Your task to perform on an android device: Go to battery settings Image 0: 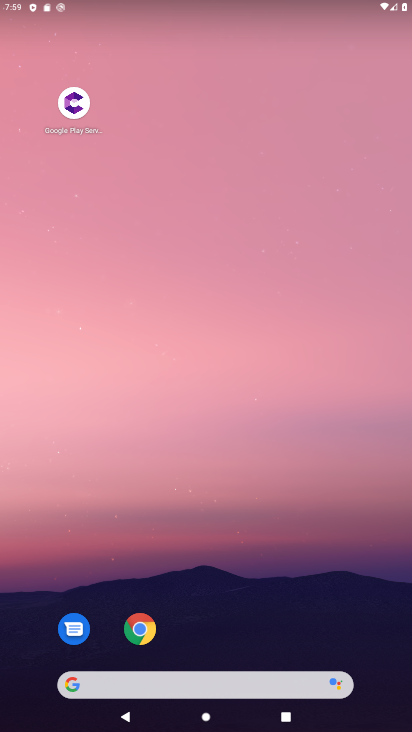
Step 0: drag from (263, 635) to (245, 202)
Your task to perform on an android device: Go to battery settings Image 1: 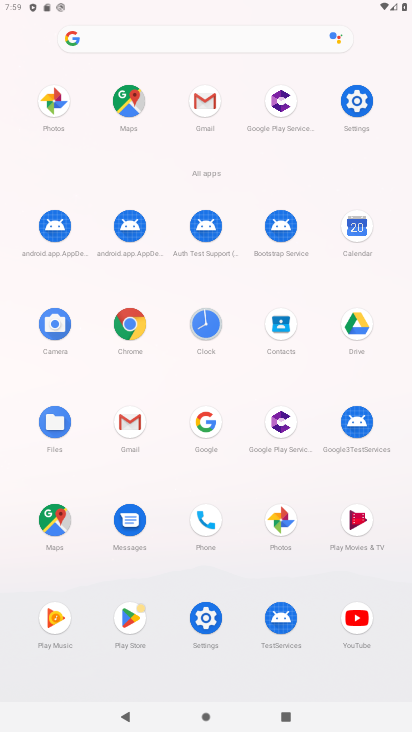
Step 1: click (351, 99)
Your task to perform on an android device: Go to battery settings Image 2: 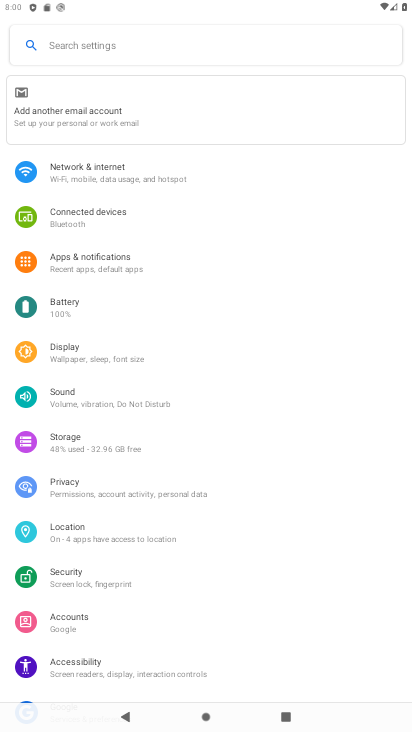
Step 2: click (199, 305)
Your task to perform on an android device: Go to battery settings Image 3: 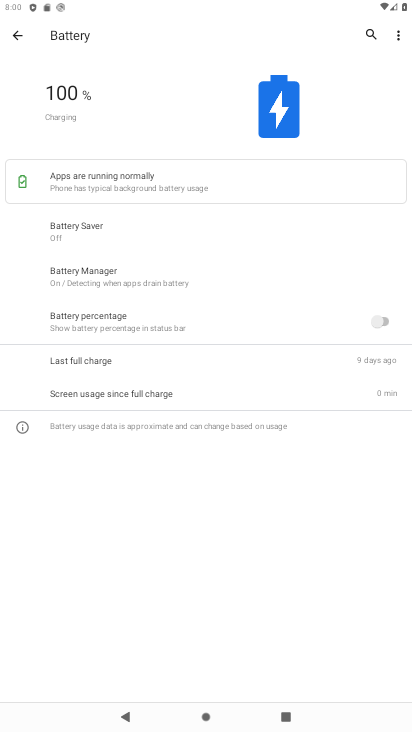
Step 3: task complete